Your task to perform on an android device: Open calendar and show me the first week of next month Image 0: 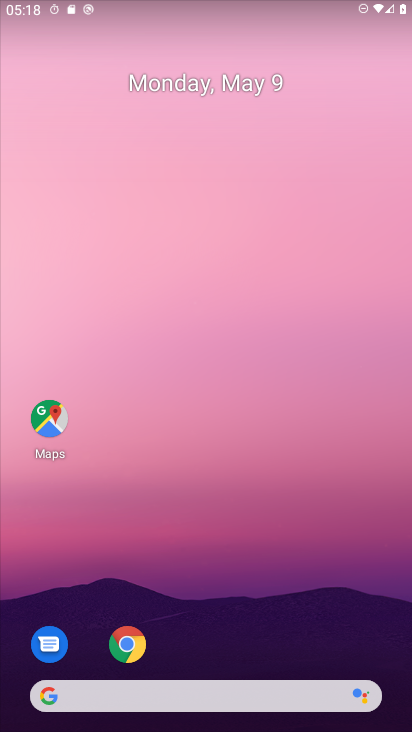
Step 0: drag from (232, 619) to (221, 38)
Your task to perform on an android device: Open calendar and show me the first week of next month Image 1: 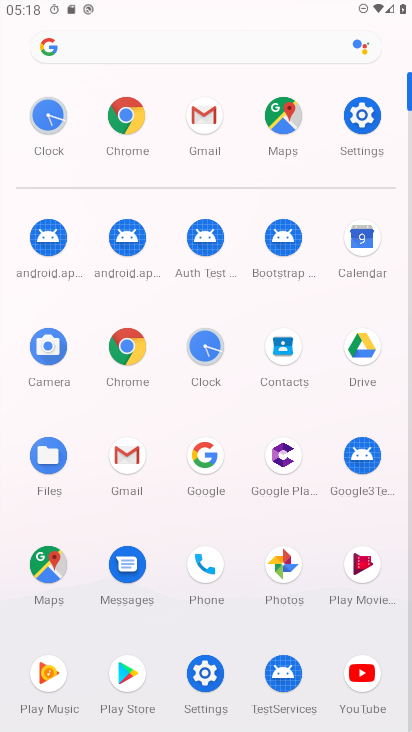
Step 1: click (360, 239)
Your task to perform on an android device: Open calendar and show me the first week of next month Image 2: 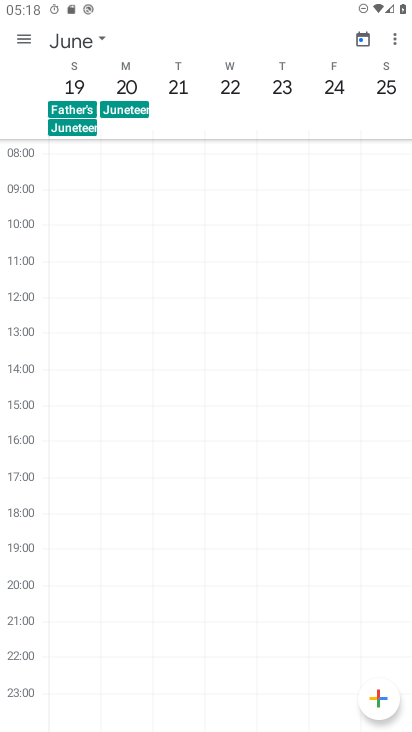
Step 2: click (361, 37)
Your task to perform on an android device: Open calendar and show me the first week of next month Image 3: 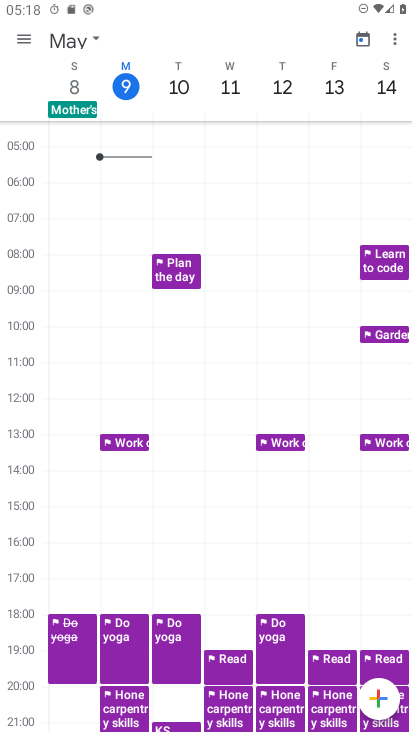
Step 3: click (95, 39)
Your task to perform on an android device: Open calendar and show me the first week of next month Image 4: 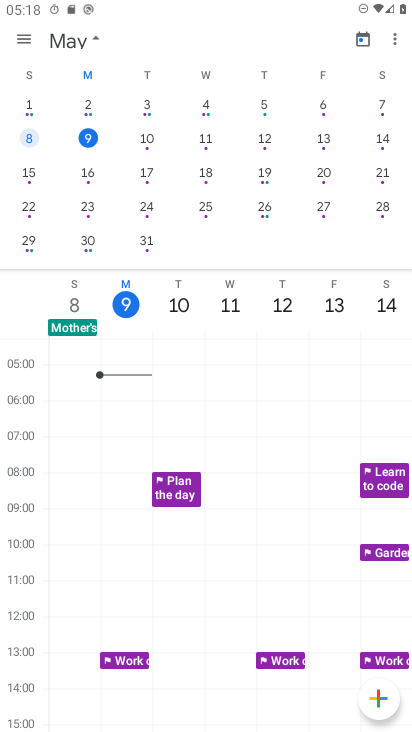
Step 4: drag from (351, 165) to (2, 146)
Your task to perform on an android device: Open calendar and show me the first week of next month Image 5: 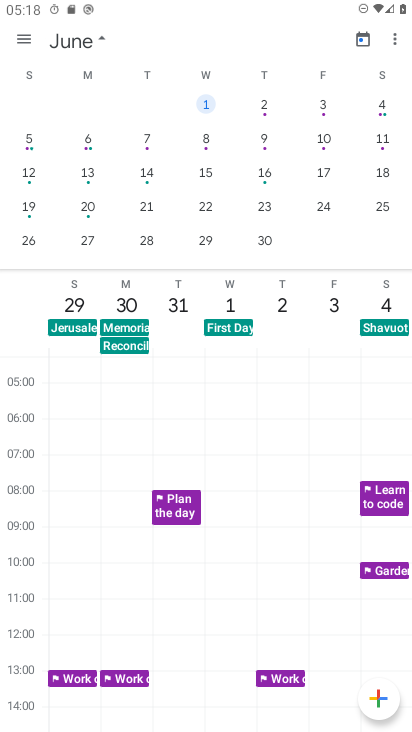
Step 5: click (93, 141)
Your task to perform on an android device: Open calendar and show me the first week of next month Image 6: 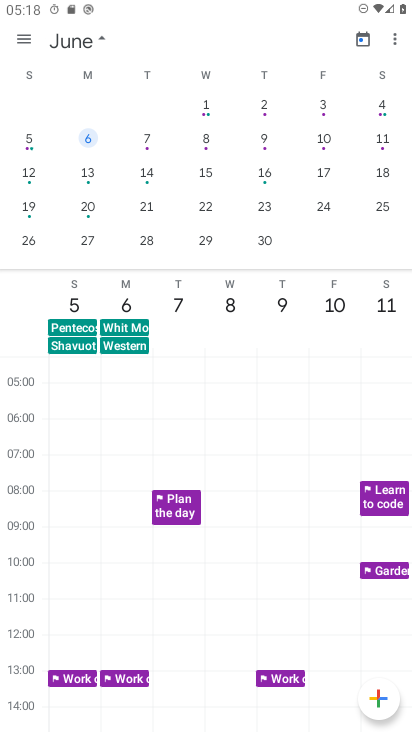
Step 6: click (25, 40)
Your task to perform on an android device: Open calendar and show me the first week of next month Image 7: 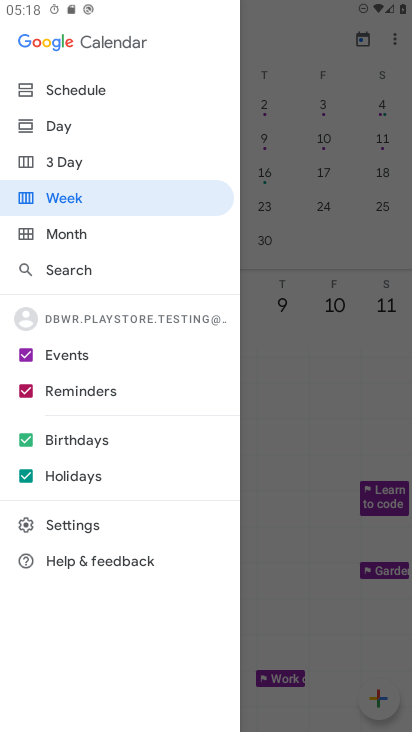
Step 7: click (89, 202)
Your task to perform on an android device: Open calendar and show me the first week of next month Image 8: 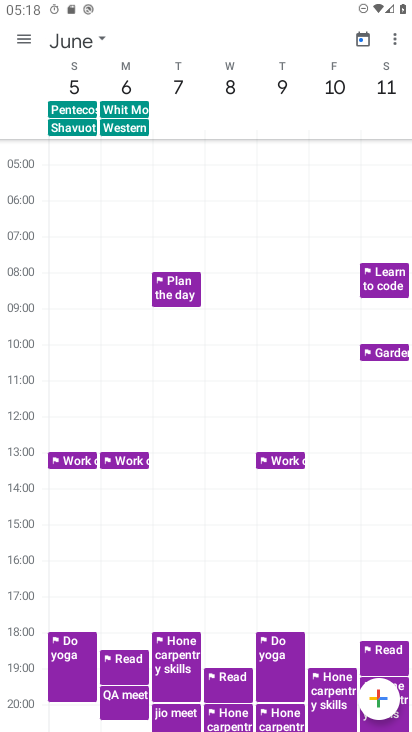
Step 8: task complete